Your task to perform on an android device: Go to display settings Image 0: 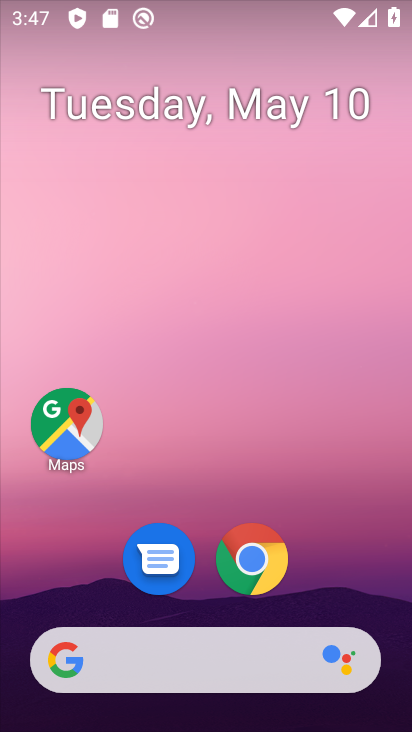
Step 0: drag from (76, 598) to (237, 142)
Your task to perform on an android device: Go to display settings Image 1: 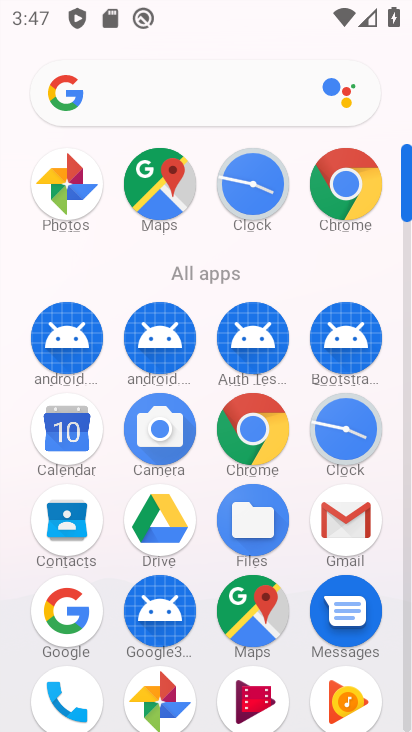
Step 1: drag from (152, 504) to (201, 358)
Your task to perform on an android device: Go to display settings Image 2: 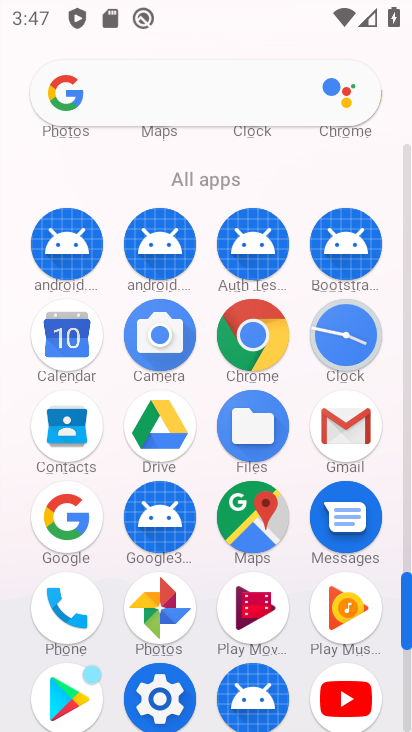
Step 2: click (158, 695)
Your task to perform on an android device: Go to display settings Image 3: 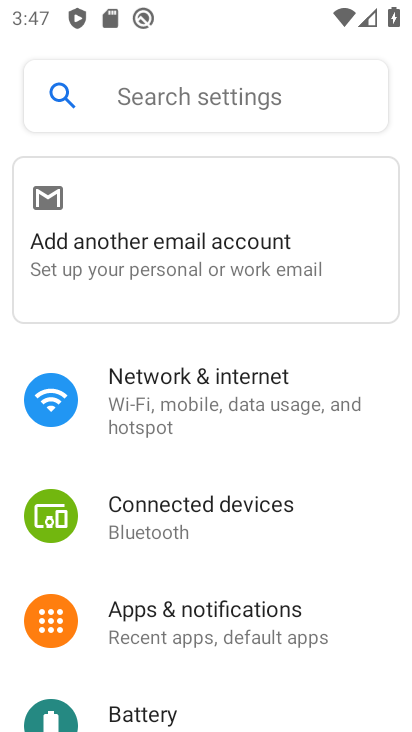
Step 3: drag from (166, 627) to (229, 375)
Your task to perform on an android device: Go to display settings Image 4: 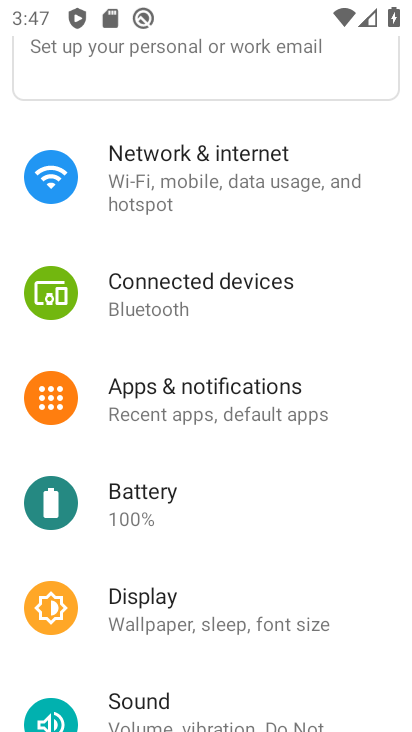
Step 4: drag from (221, 534) to (306, 330)
Your task to perform on an android device: Go to display settings Image 5: 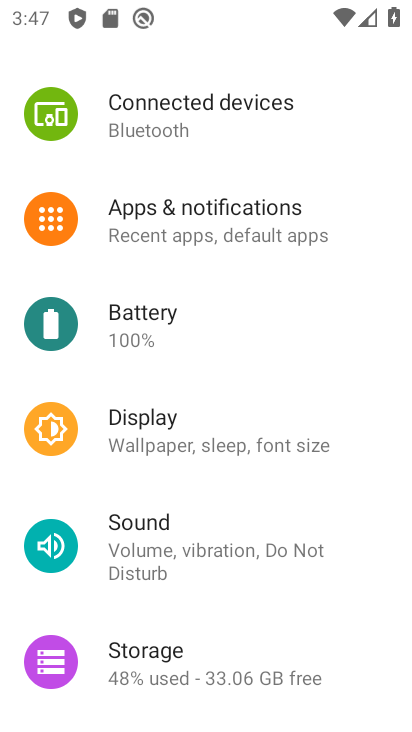
Step 5: click (188, 439)
Your task to perform on an android device: Go to display settings Image 6: 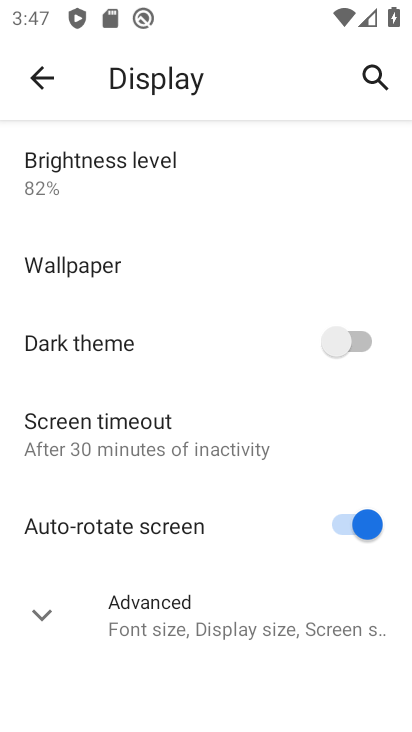
Step 6: task complete